Your task to perform on an android device: turn pop-ups on in chrome Image 0: 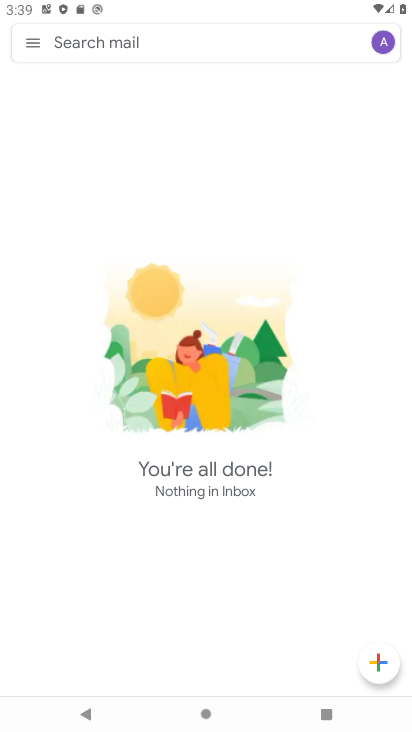
Step 0: press home button
Your task to perform on an android device: turn pop-ups on in chrome Image 1: 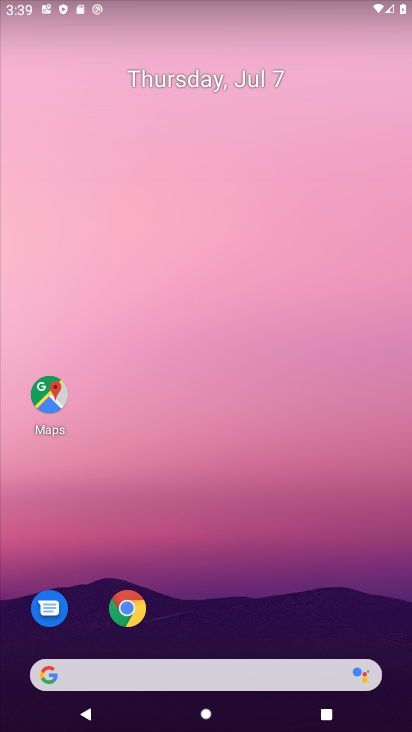
Step 1: click (126, 606)
Your task to perform on an android device: turn pop-ups on in chrome Image 2: 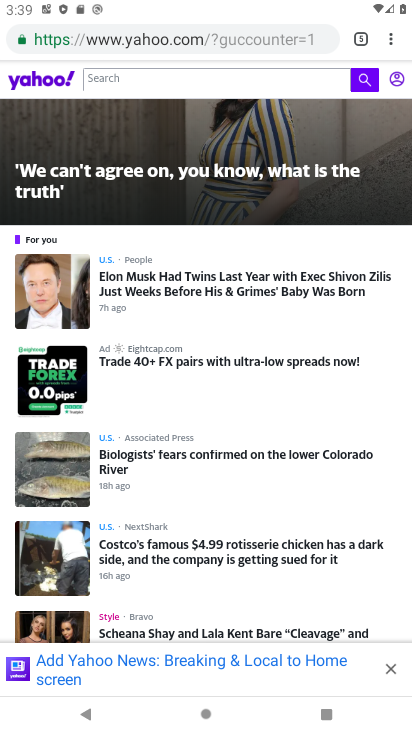
Step 2: click (391, 40)
Your task to perform on an android device: turn pop-ups on in chrome Image 3: 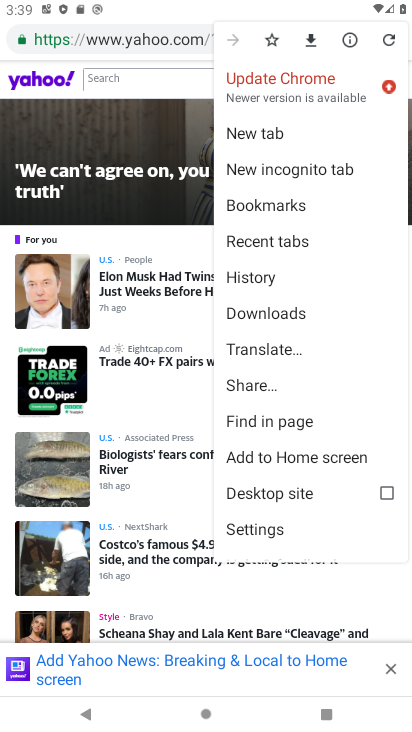
Step 3: click (259, 531)
Your task to perform on an android device: turn pop-ups on in chrome Image 4: 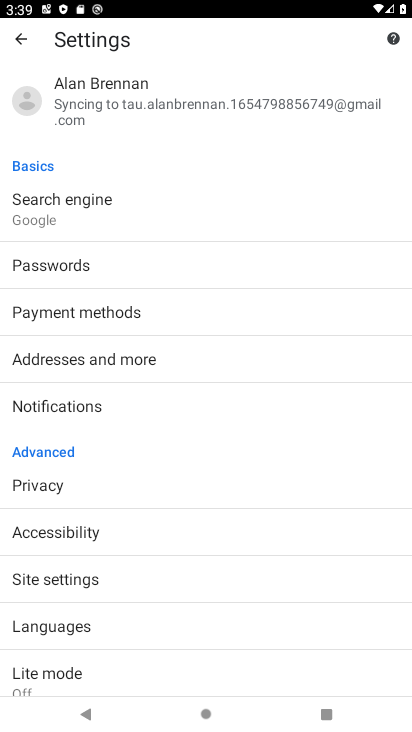
Step 4: click (68, 585)
Your task to perform on an android device: turn pop-ups on in chrome Image 5: 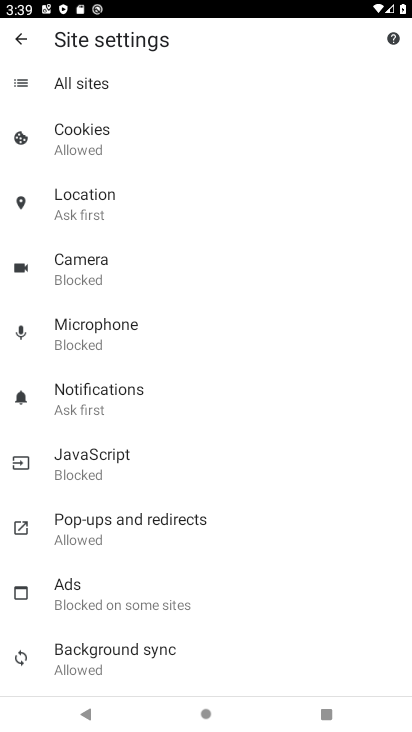
Step 5: click (94, 532)
Your task to perform on an android device: turn pop-ups on in chrome Image 6: 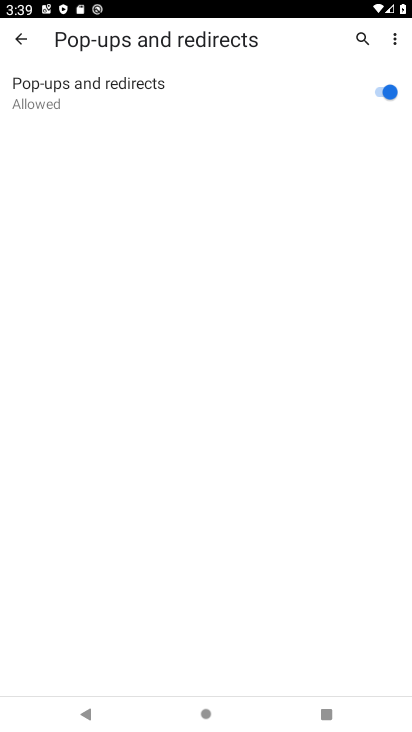
Step 6: task complete